Your task to perform on an android device: open sync settings in chrome Image 0: 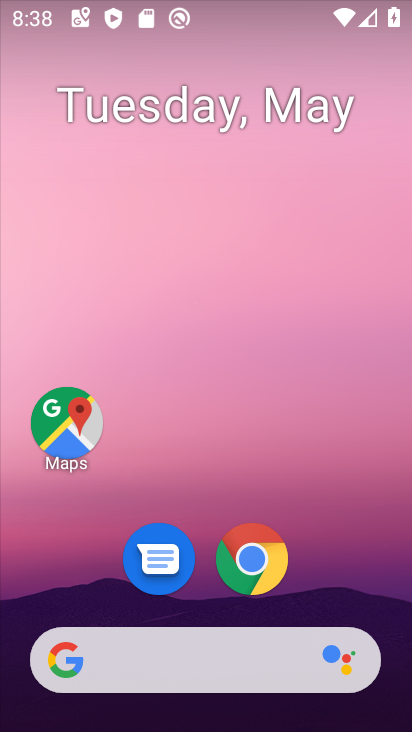
Step 0: drag from (337, 584) to (336, 103)
Your task to perform on an android device: open sync settings in chrome Image 1: 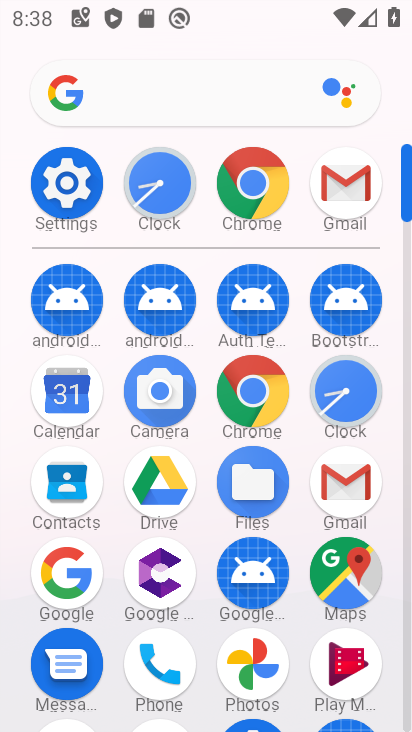
Step 1: click (255, 200)
Your task to perform on an android device: open sync settings in chrome Image 2: 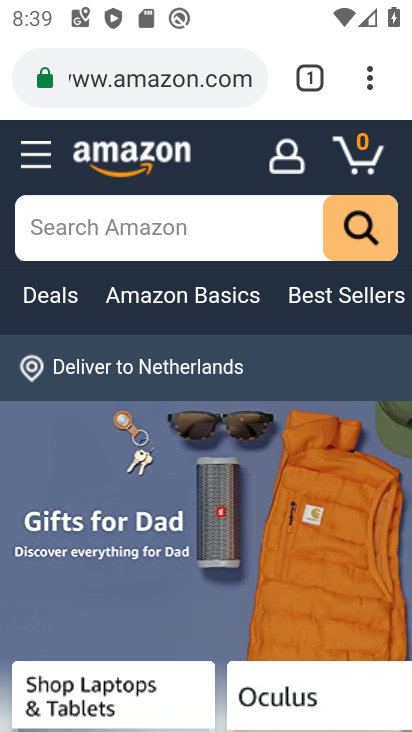
Step 2: drag from (366, 80) to (145, 606)
Your task to perform on an android device: open sync settings in chrome Image 3: 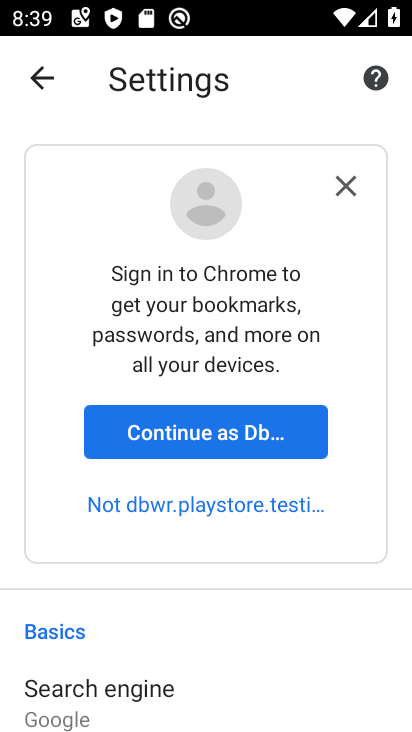
Step 3: drag from (191, 649) to (149, 257)
Your task to perform on an android device: open sync settings in chrome Image 4: 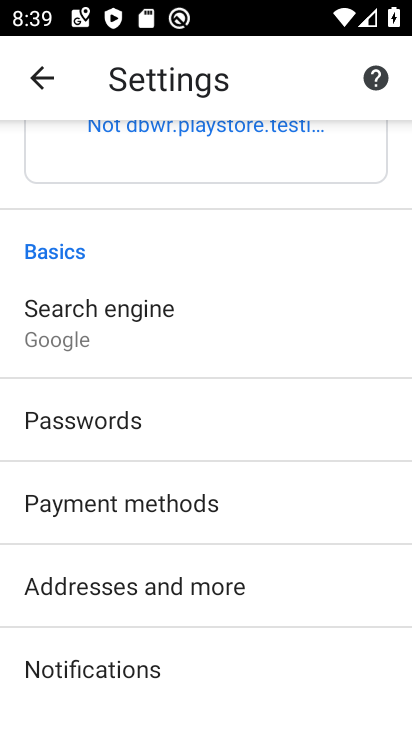
Step 4: drag from (193, 569) to (183, 206)
Your task to perform on an android device: open sync settings in chrome Image 5: 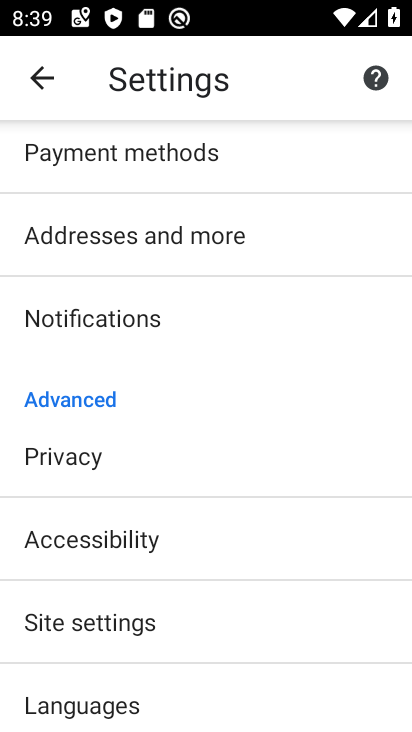
Step 5: drag from (228, 567) to (196, 229)
Your task to perform on an android device: open sync settings in chrome Image 6: 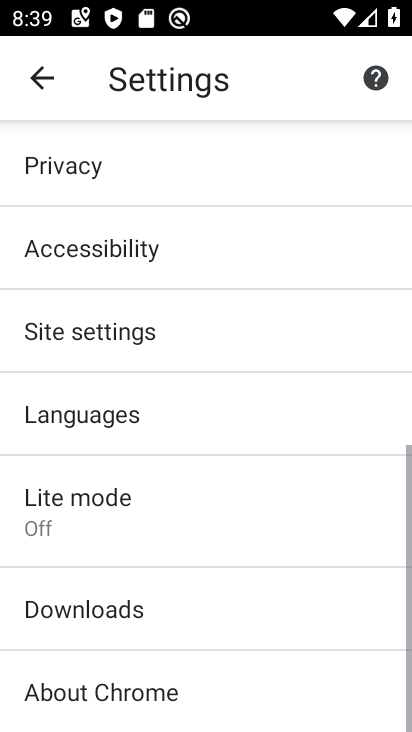
Step 6: click (133, 339)
Your task to perform on an android device: open sync settings in chrome Image 7: 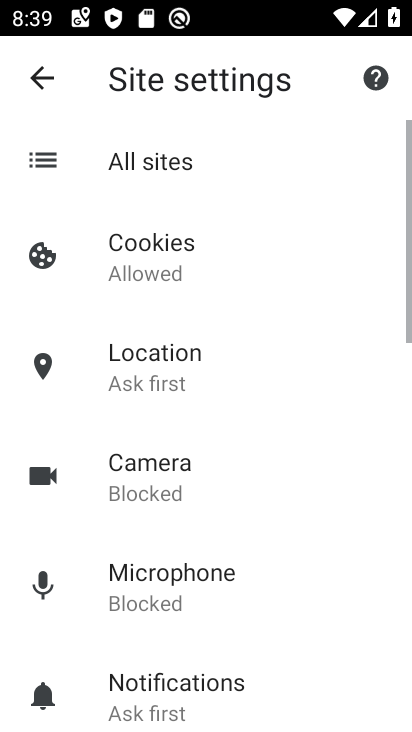
Step 7: drag from (190, 610) to (216, 265)
Your task to perform on an android device: open sync settings in chrome Image 8: 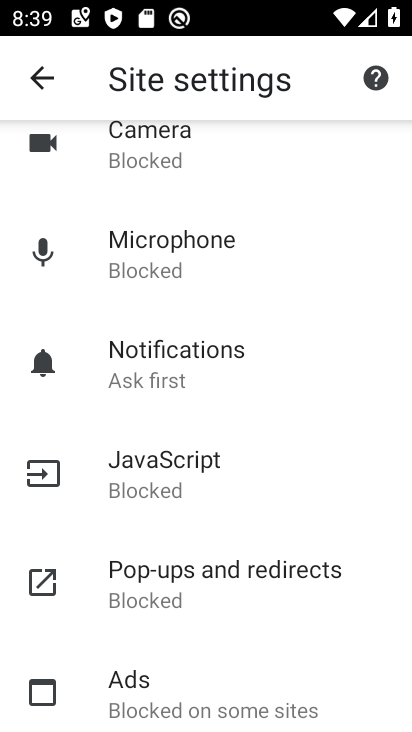
Step 8: drag from (208, 548) to (233, 249)
Your task to perform on an android device: open sync settings in chrome Image 9: 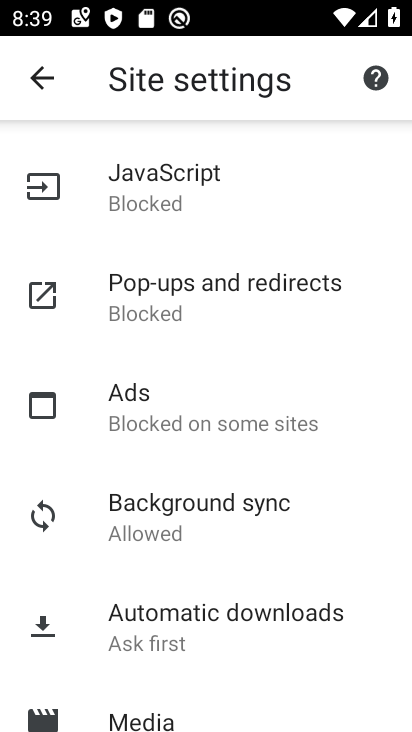
Step 9: click (233, 507)
Your task to perform on an android device: open sync settings in chrome Image 10: 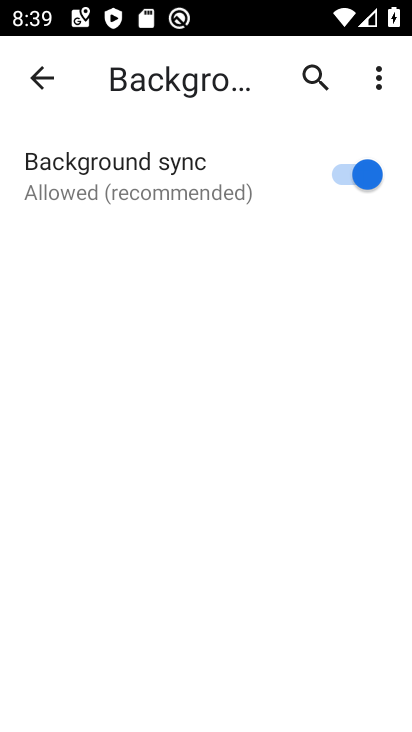
Step 10: task complete